Your task to perform on an android device: add a contact Image 0: 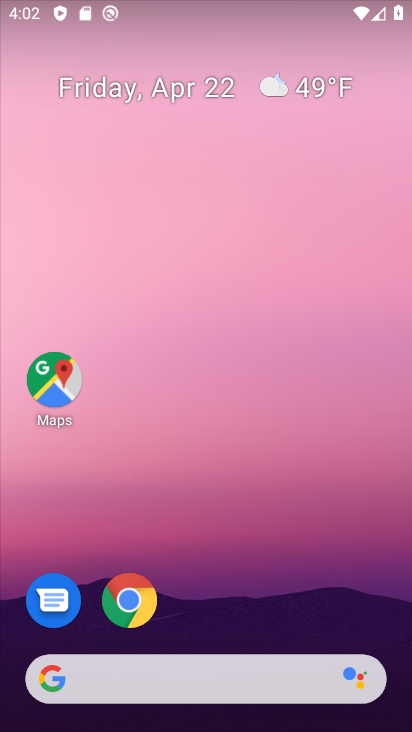
Step 0: drag from (239, 539) to (272, 23)
Your task to perform on an android device: add a contact Image 1: 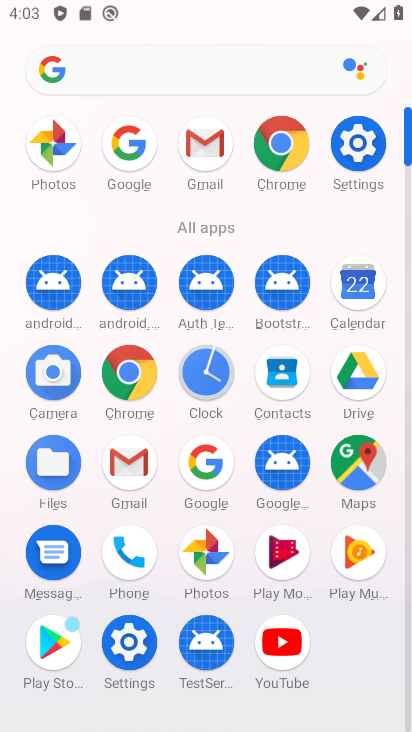
Step 1: click (280, 380)
Your task to perform on an android device: add a contact Image 2: 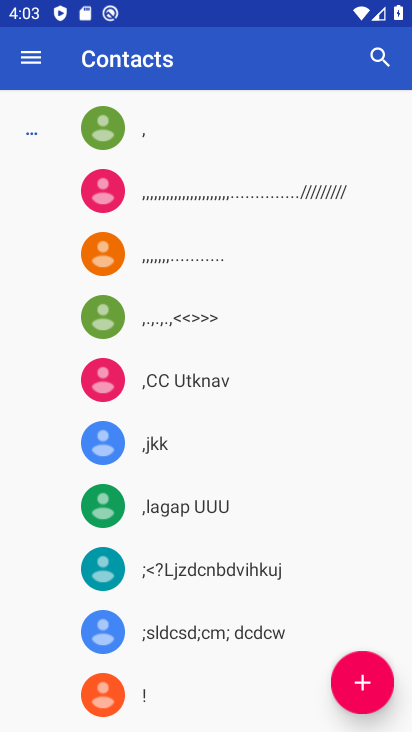
Step 2: click (361, 681)
Your task to perform on an android device: add a contact Image 3: 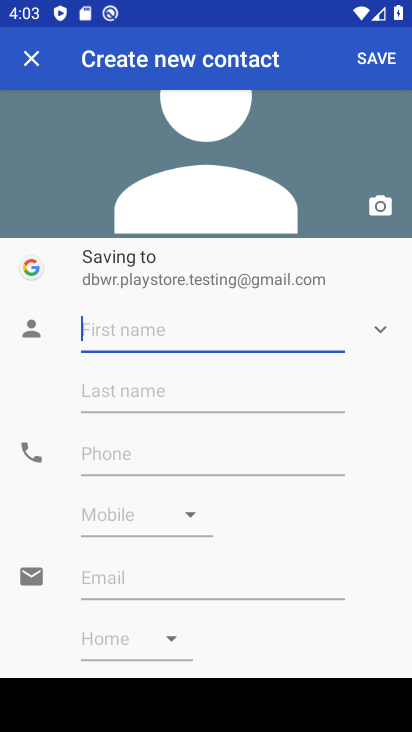
Step 3: click (223, 329)
Your task to perform on an android device: add a contact Image 4: 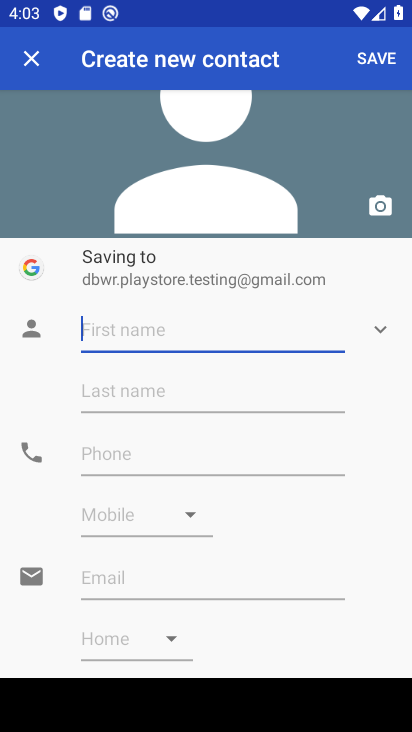
Step 4: type "Harshvardhan singh"
Your task to perform on an android device: add a contact Image 5: 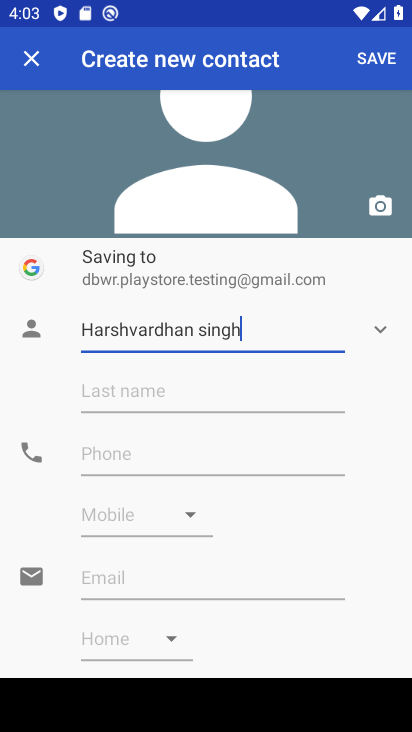
Step 5: click (155, 399)
Your task to perform on an android device: add a contact Image 6: 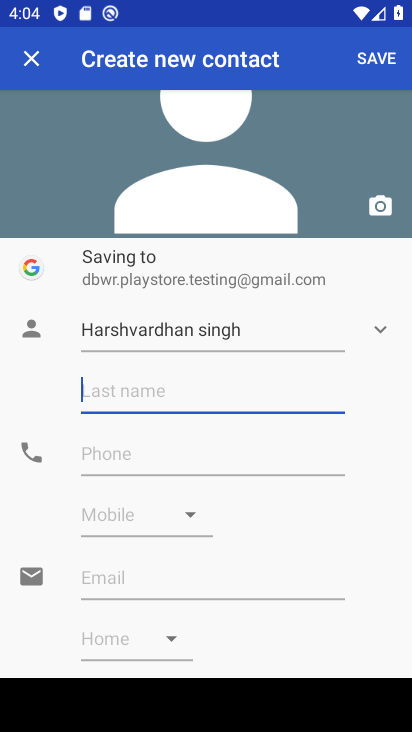
Step 6: type "Rathore"
Your task to perform on an android device: add a contact Image 7: 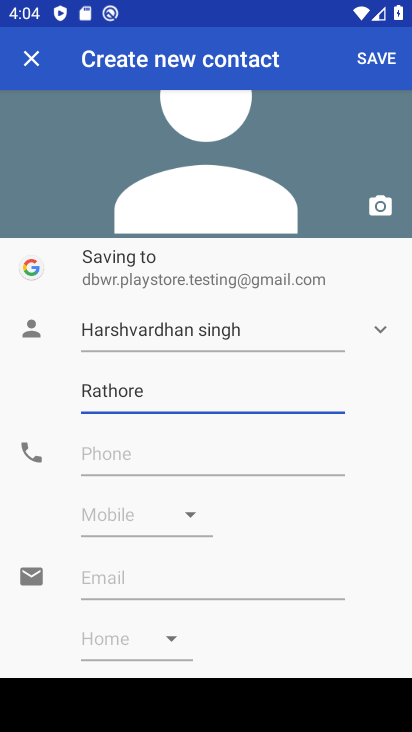
Step 7: click (133, 452)
Your task to perform on an android device: add a contact Image 8: 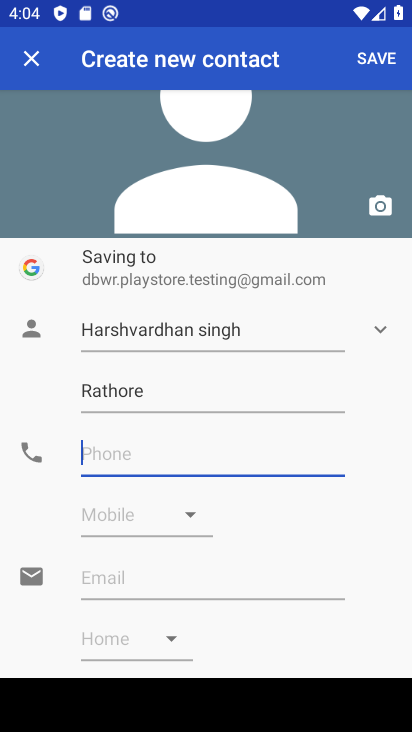
Step 8: type "009988776655"
Your task to perform on an android device: add a contact Image 9: 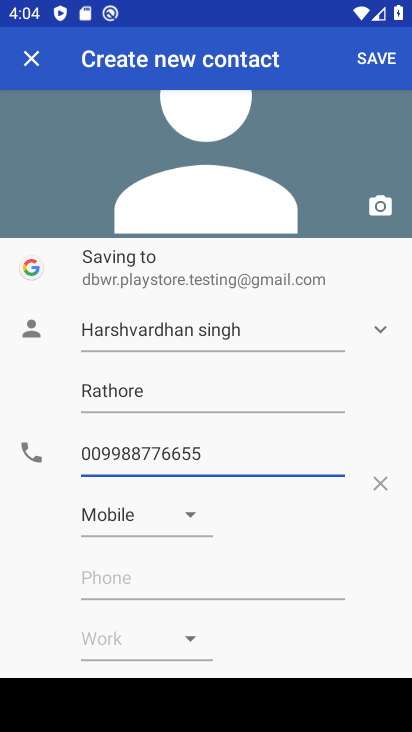
Step 9: click (386, 56)
Your task to perform on an android device: add a contact Image 10: 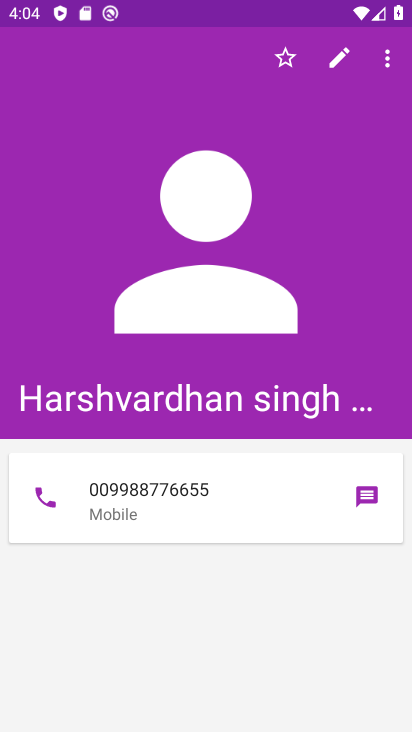
Step 10: task complete